Your task to perform on an android device: toggle data saver in the chrome app Image 0: 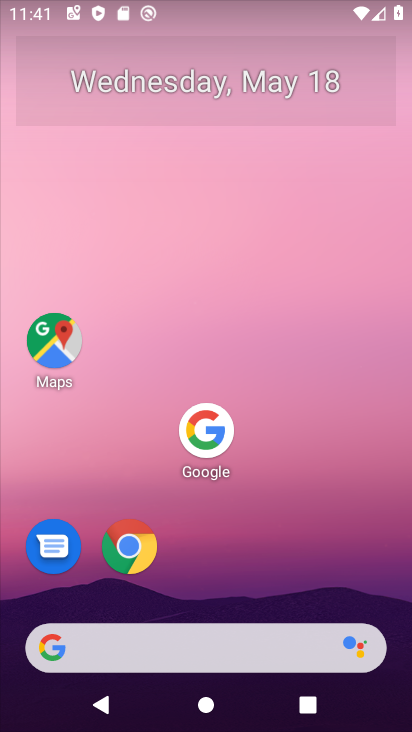
Step 0: click (134, 541)
Your task to perform on an android device: toggle data saver in the chrome app Image 1: 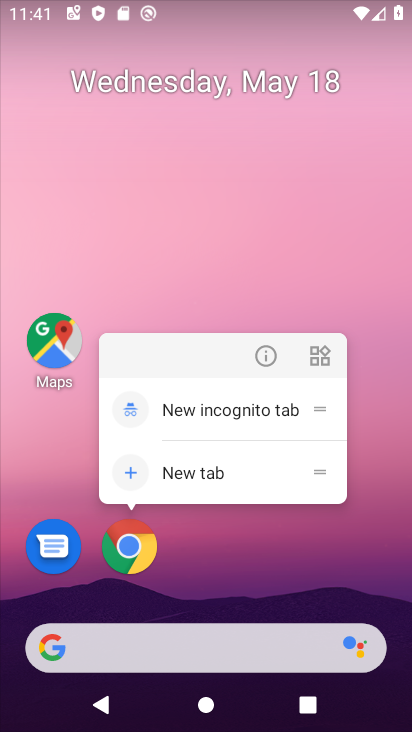
Step 1: click (134, 541)
Your task to perform on an android device: toggle data saver in the chrome app Image 2: 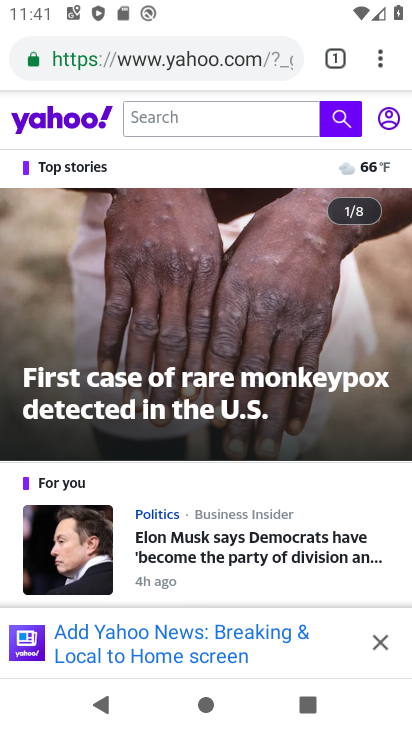
Step 2: click (378, 50)
Your task to perform on an android device: toggle data saver in the chrome app Image 3: 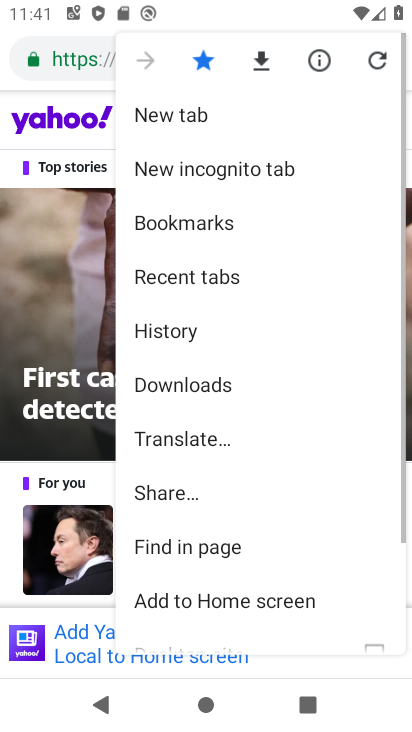
Step 3: drag from (201, 536) to (265, 200)
Your task to perform on an android device: toggle data saver in the chrome app Image 4: 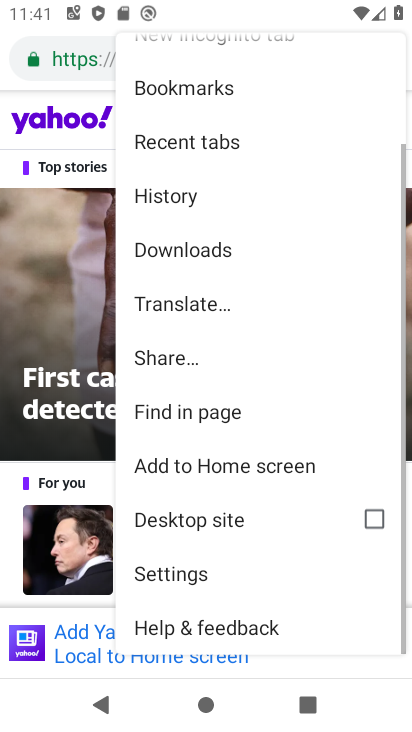
Step 4: click (193, 583)
Your task to perform on an android device: toggle data saver in the chrome app Image 5: 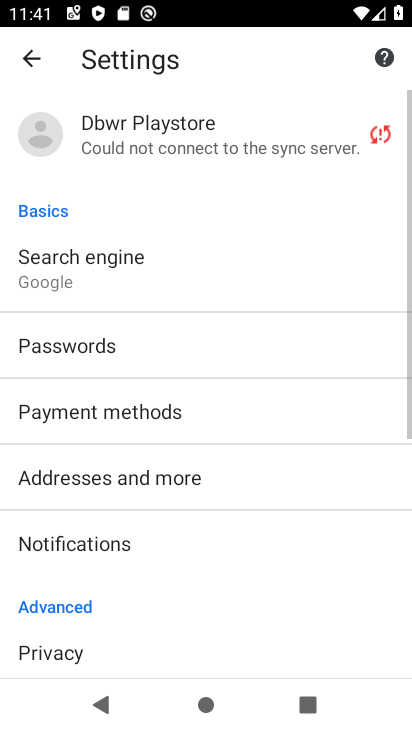
Step 5: drag from (202, 666) to (244, 364)
Your task to perform on an android device: toggle data saver in the chrome app Image 6: 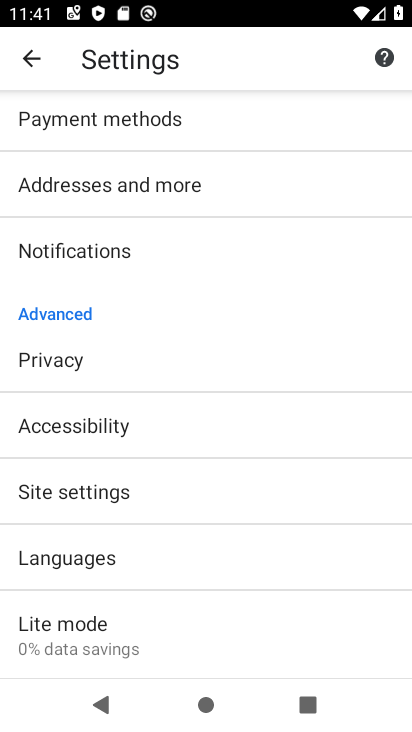
Step 6: click (100, 621)
Your task to perform on an android device: toggle data saver in the chrome app Image 7: 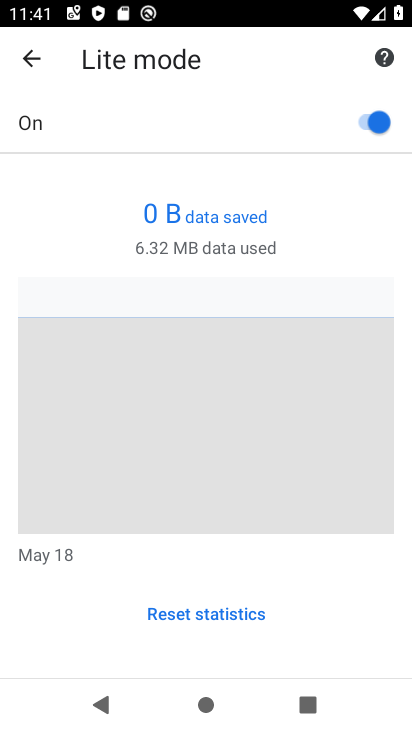
Step 7: click (378, 120)
Your task to perform on an android device: toggle data saver in the chrome app Image 8: 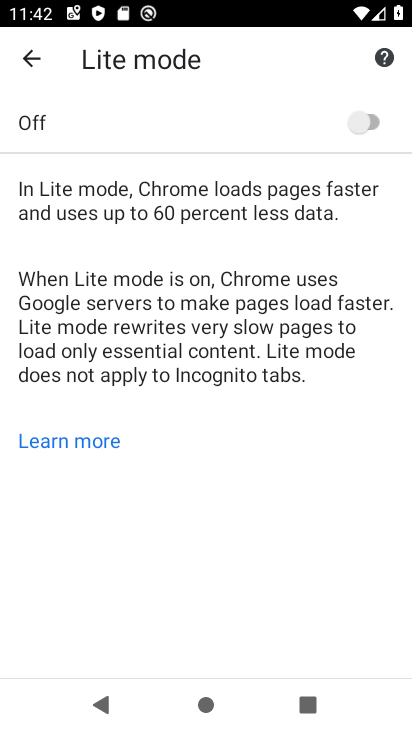
Step 8: task complete